Your task to perform on an android device: open device folders in google photos Image 0: 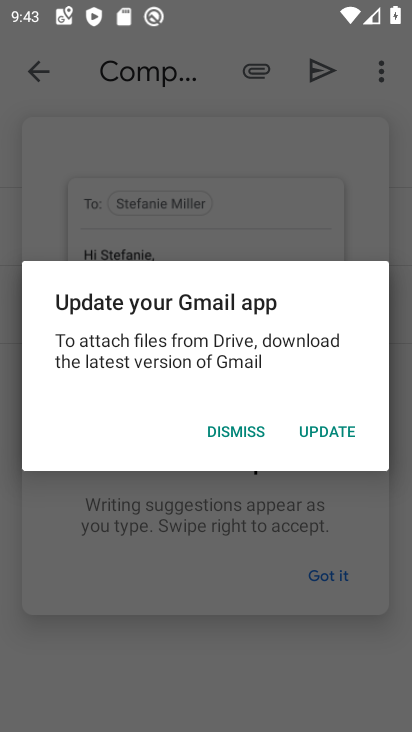
Step 0: press home button
Your task to perform on an android device: open device folders in google photos Image 1: 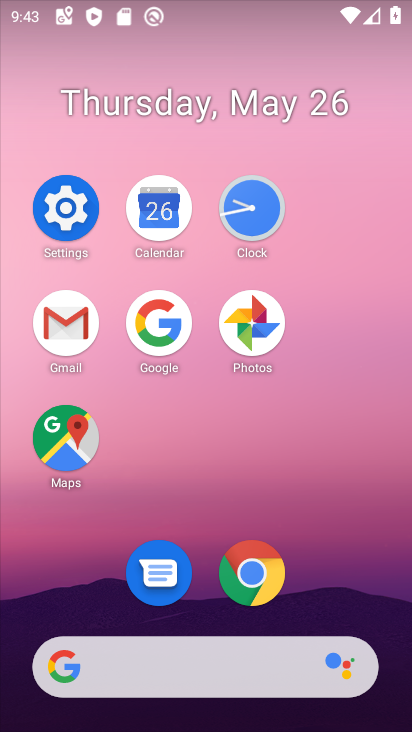
Step 1: click (239, 334)
Your task to perform on an android device: open device folders in google photos Image 2: 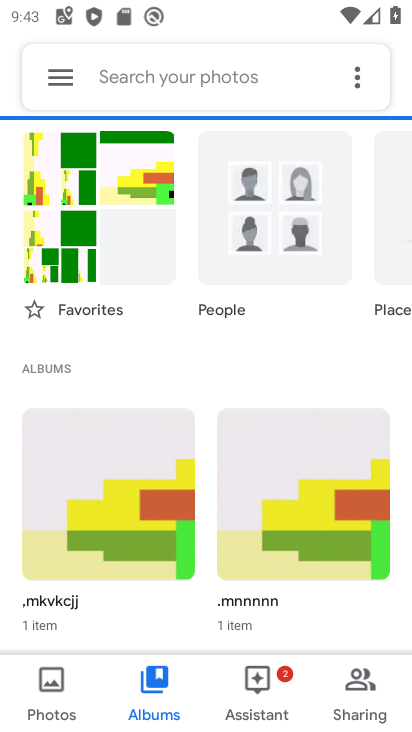
Step 2: click (30, 82)
Your task to perform on an android device: open device folders in google photos Image 3: 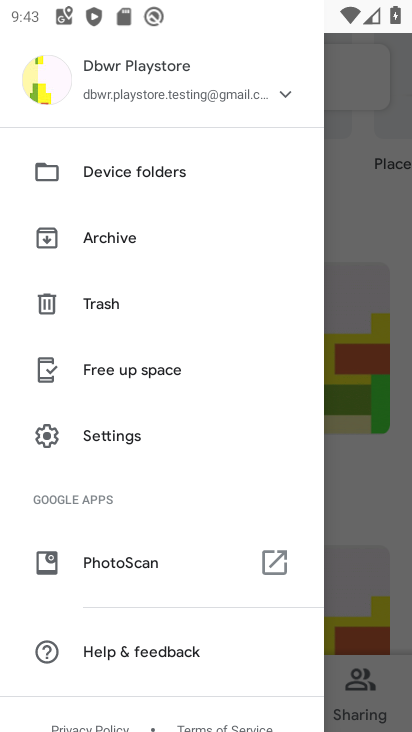
Step 3: click (148, 191)
Your task to perform on an android device: open device folders in google photos Image 4: 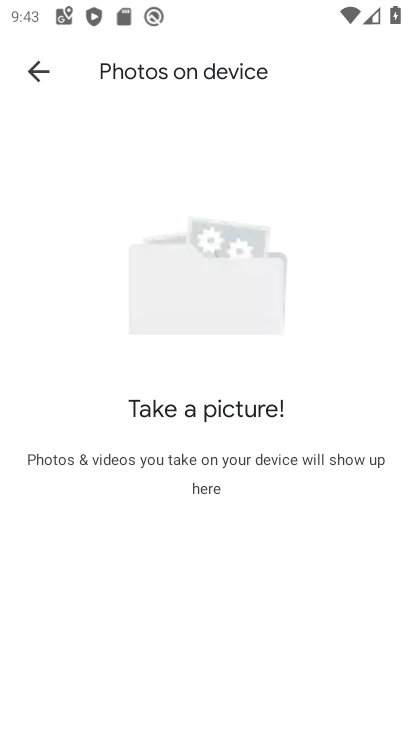
Step 4: task complete